Your task to perform on an android device: star an email in the gmail app Image 0: 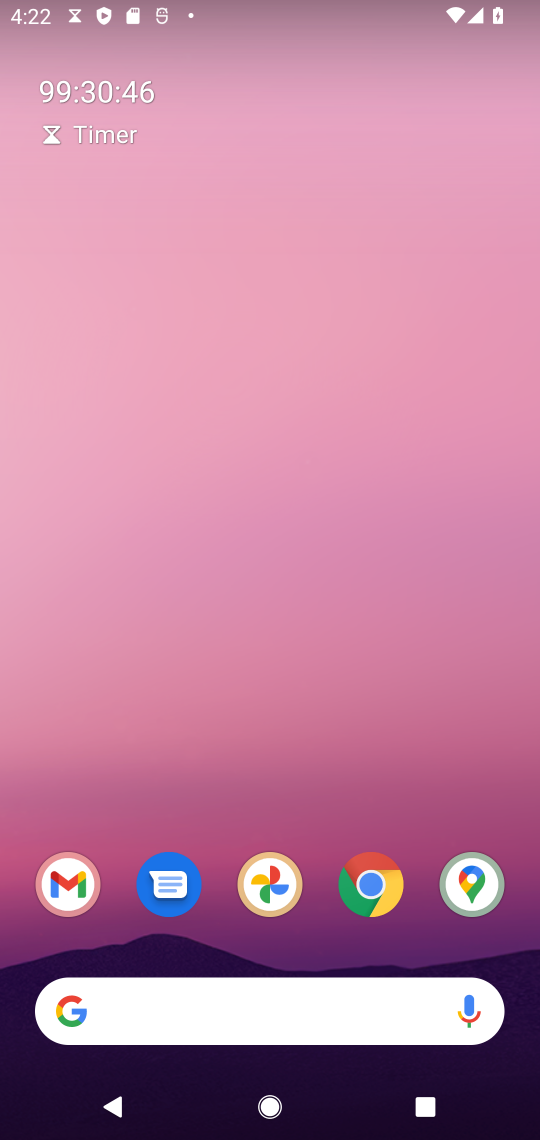
Step 0: drag from (245, 875) to (306, 235)
Your task to perform on an android device: star an email in the gmail app Image 1: 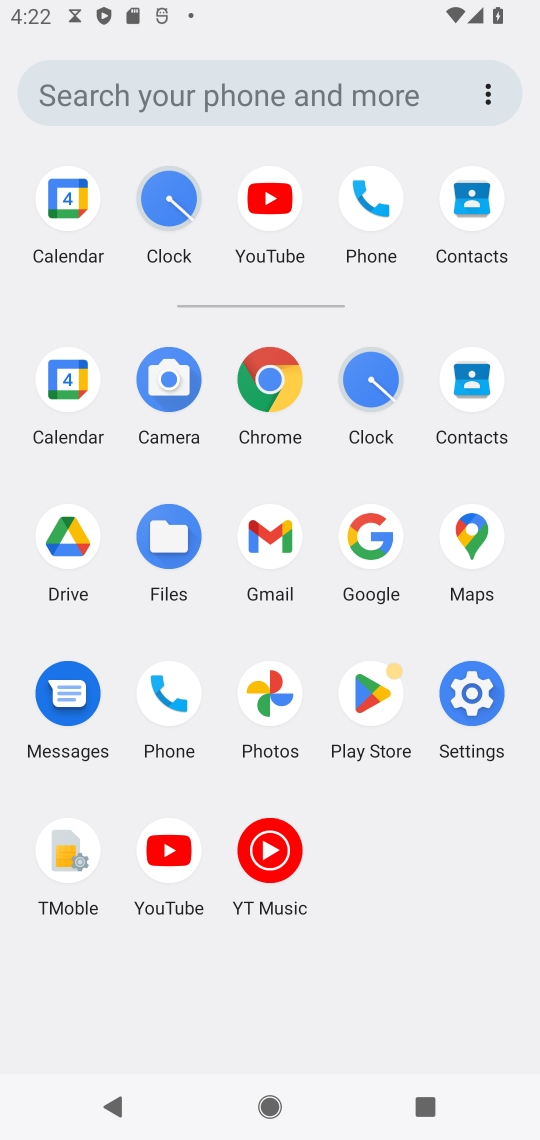
Step 1: click (284, 525)
Your task to perform on an android device: star an email in the gmail app Image 2: 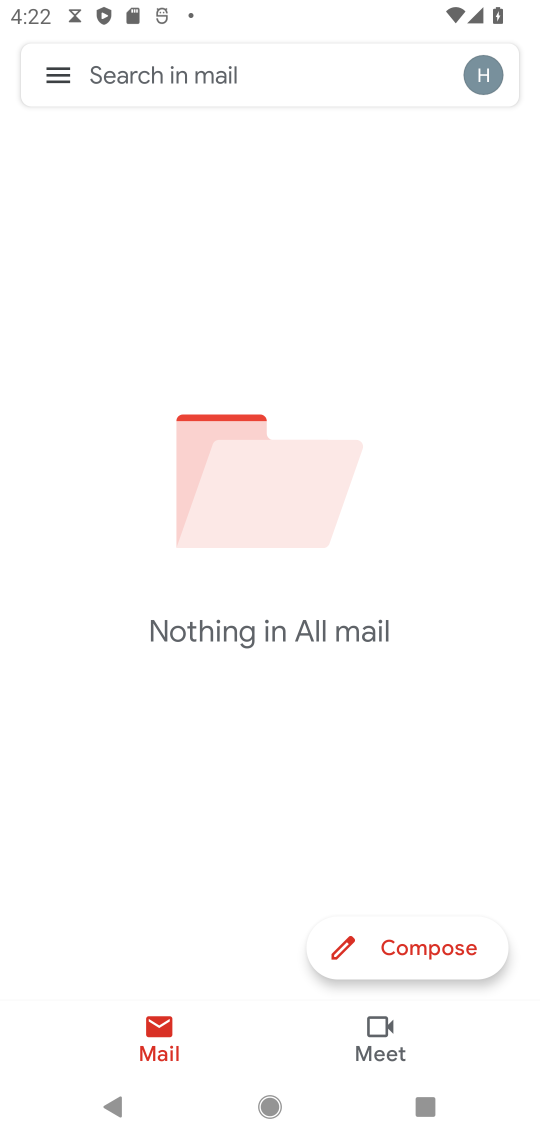
Step 2: click (64, 65)
Your task to perform on an android device: star an email in the gmail app Image 3: 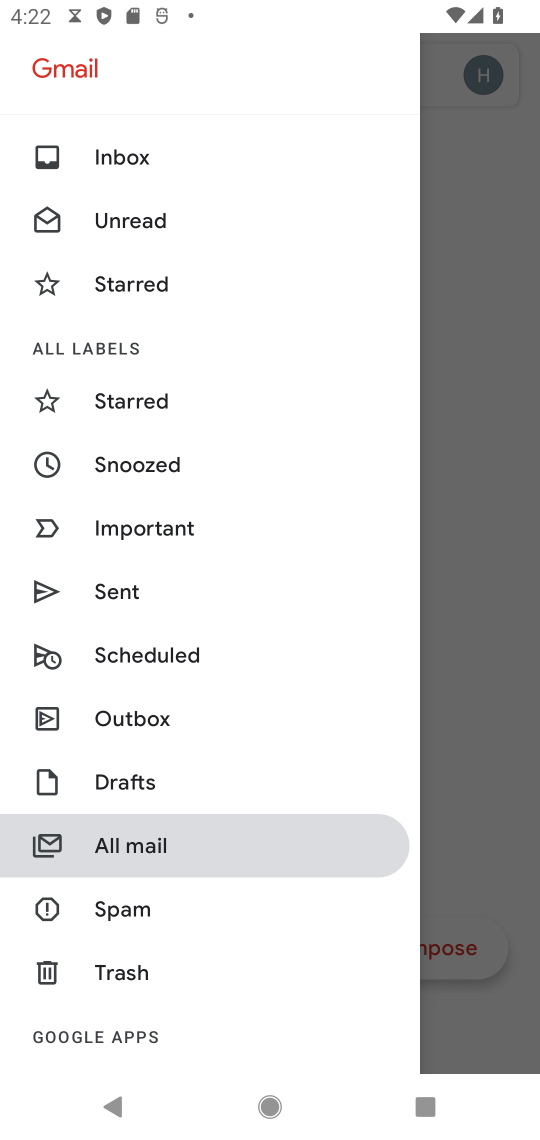
Step 3: click (129, 292)
Your task to perform on an android device: star an email in the gmail app Image 4: 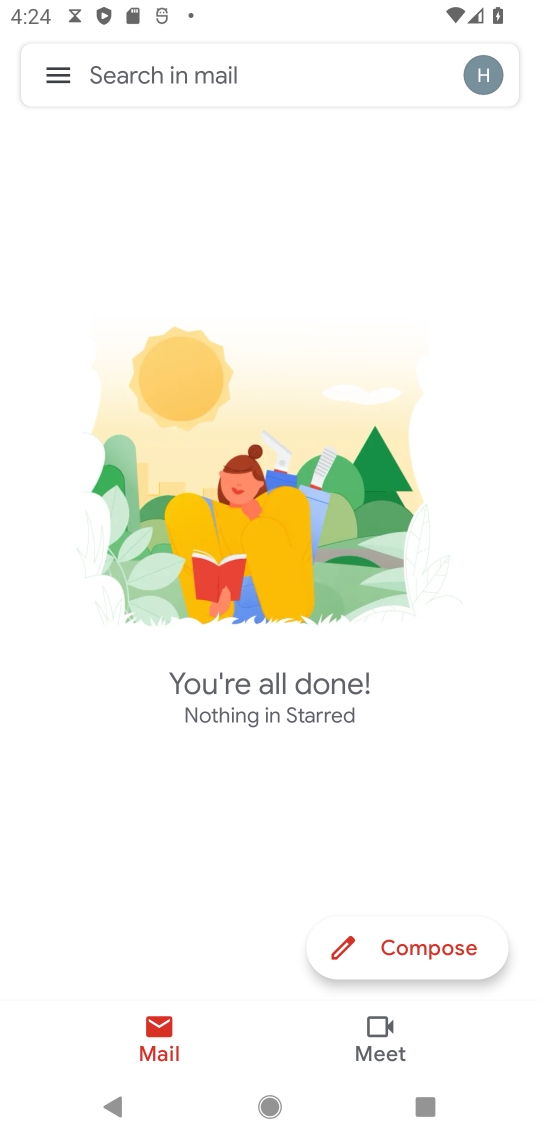
Step 4: task complete